Your task to perform on an android device: turn notification dots off Image 0: 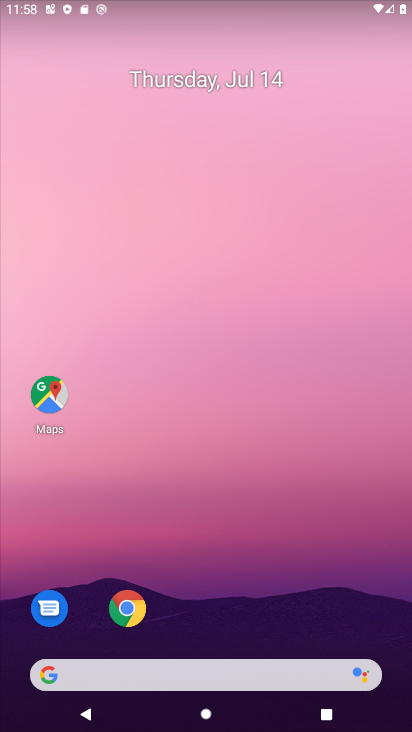
Step 0: drag from (286, 683) to (297, 69)
Your task to perform on an android device: turn notification dots off Image 1: 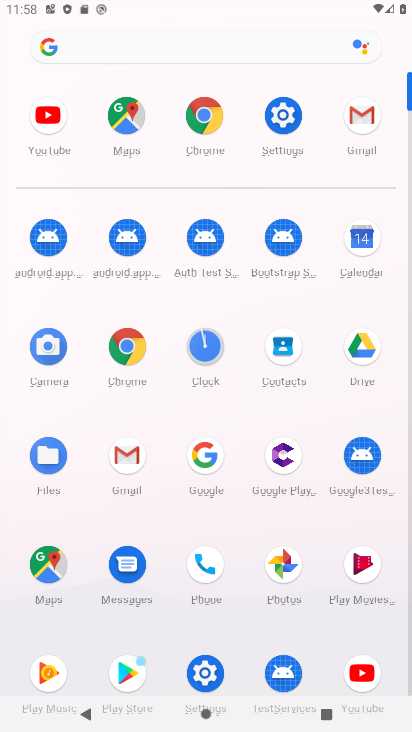
Step 1: click (293, 131)
Your task to perform on an android device: turn notification dots off Image 2: 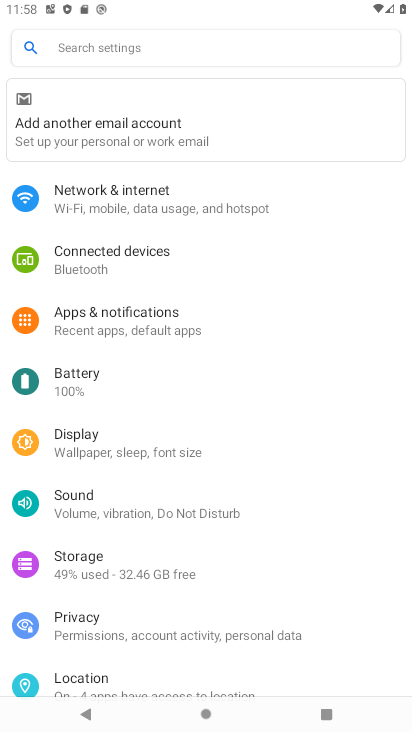
Step 2: click (225, 333)
Your task to perform on an android device: turn notification dots off Image 3: 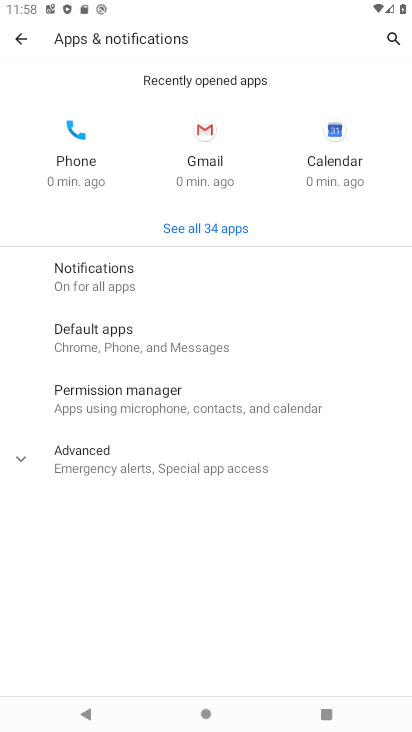
Step 3: click (131, 275)
Your task to perform on an android device: turn notification dots off Image 4: 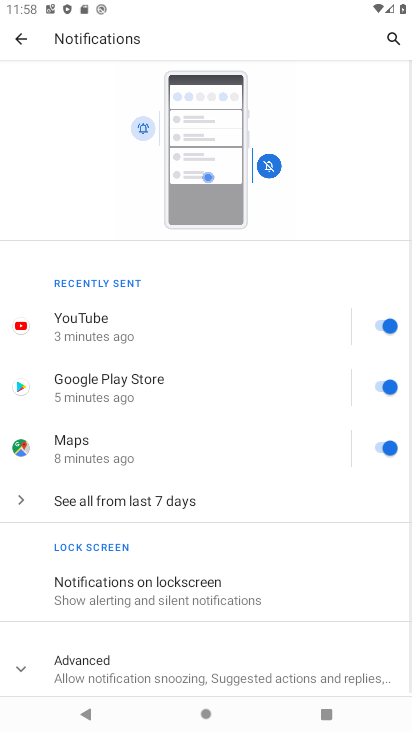
Step 4: drag from (226, 621) to (237, 352)
Your task to perform on an android device: turn notification dots off Image 5: 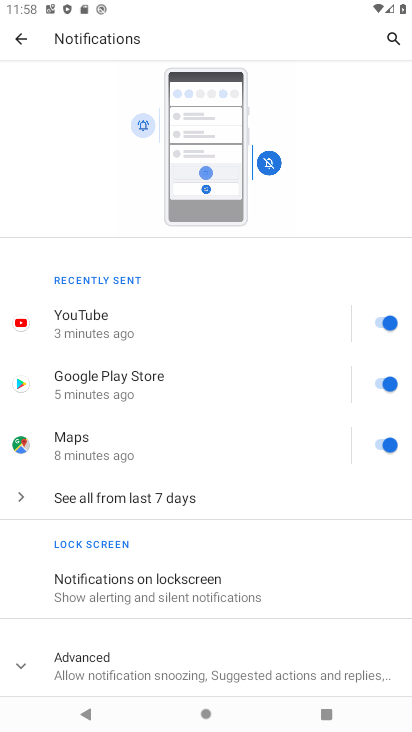
Step 5: click (227, 664)
Your task to perform on an android device: turn notification dots off Image 6: 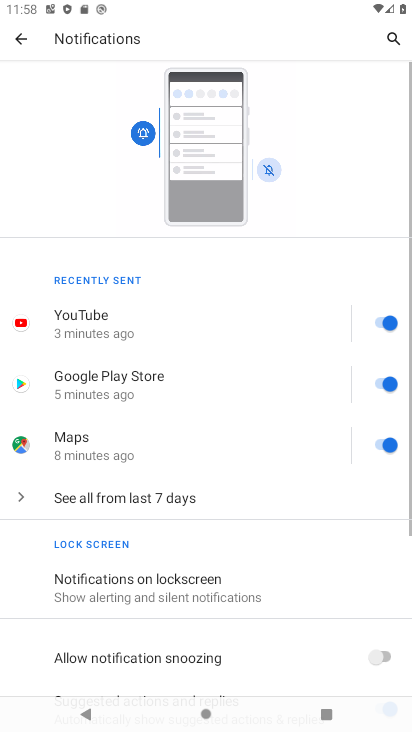
Step 6: drag from (228, 664) to (256, 391)
Your task to perform on an android device: turn notification dots off Image 7: 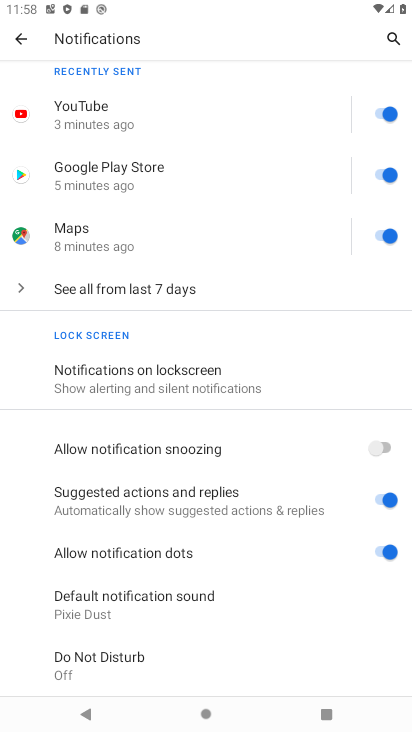
Step 7: click (387, 551)
Your task to perform on an android device: turn notification dots off Image 8: 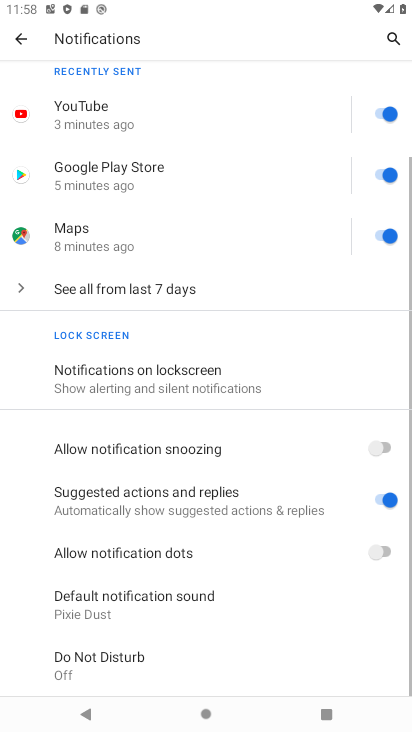
Step 8: task complete